Your task to perform on an android device: turn on notifications settings in the gmail app Image 0: 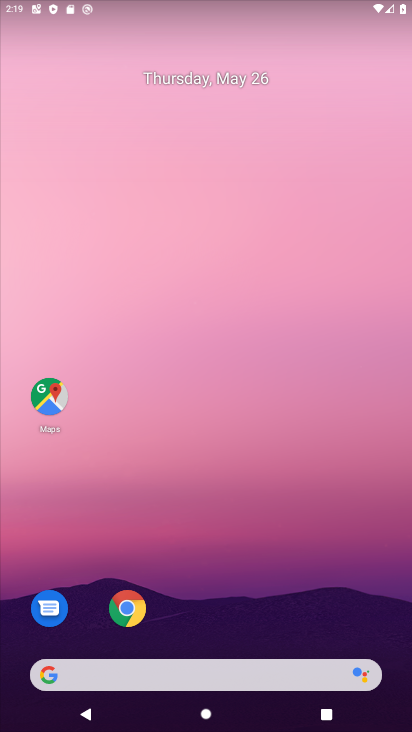
Step 0: drag from (367, 451) to (404, 503)
Your task to perform on an android device: turn on notifications settings in the gmail app Image 1: 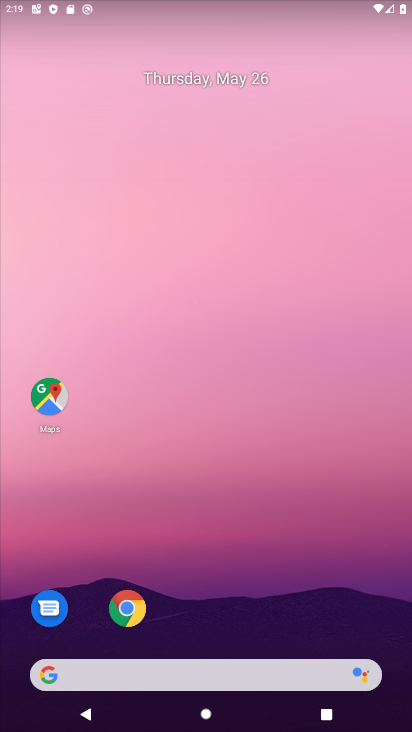
Step 1: drag from (337, 590) to (316, 34)
Your task to perform on an android device: turn on notifications settings in the gmail app Image 2: 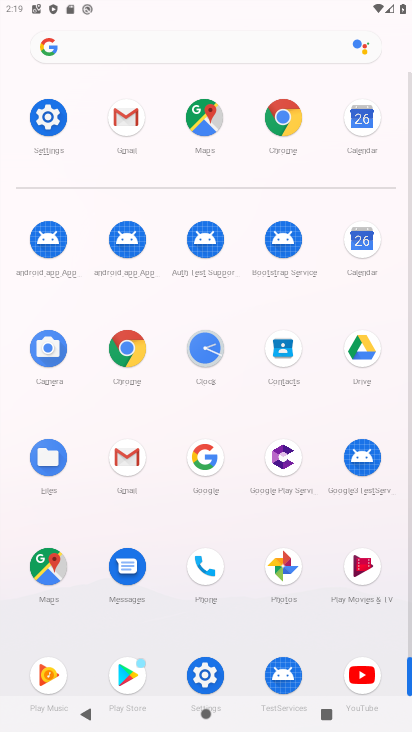
Step 2: click (116, 116)
Your task to perform on an android device: turn on notifications settings in the gmail app Image 3: 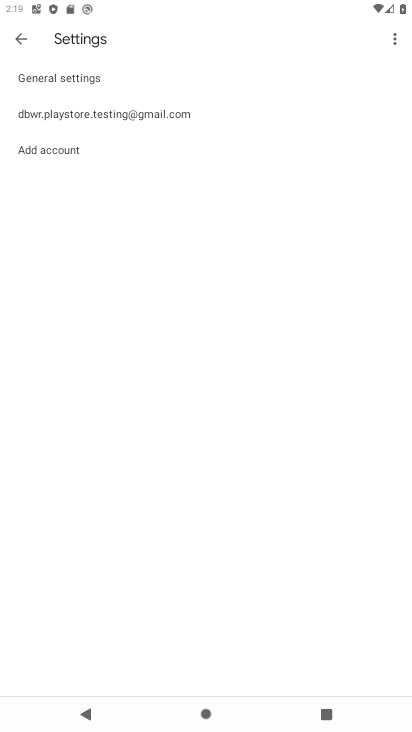
Step 3: click (130, 120)
Your task to perform on an android device: turn on notifications settings in the gmail app Image 4: 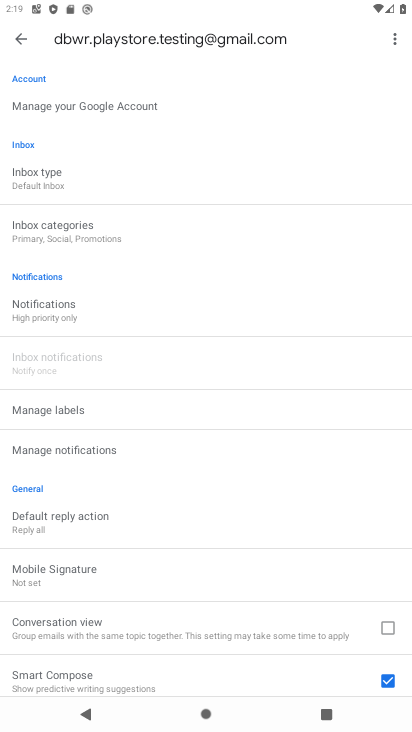
Step 4: click (20, 325)
Your task to perform on an android device: turn on notifications settings in the gmail app Image 5: 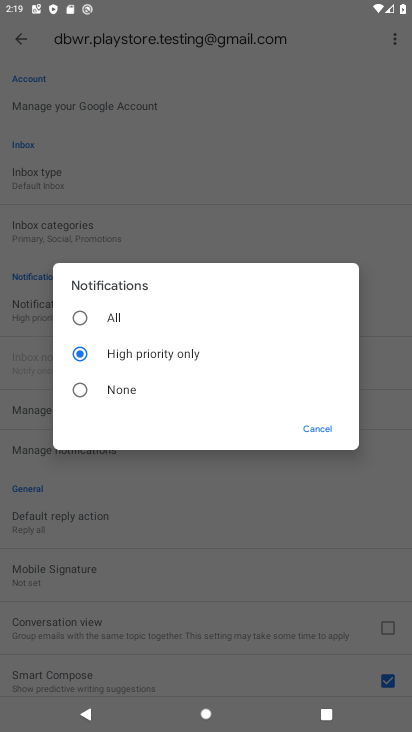
Step 5: task complete